Your task to perform on an android device: toggle pop-ups in chrome Image 0: 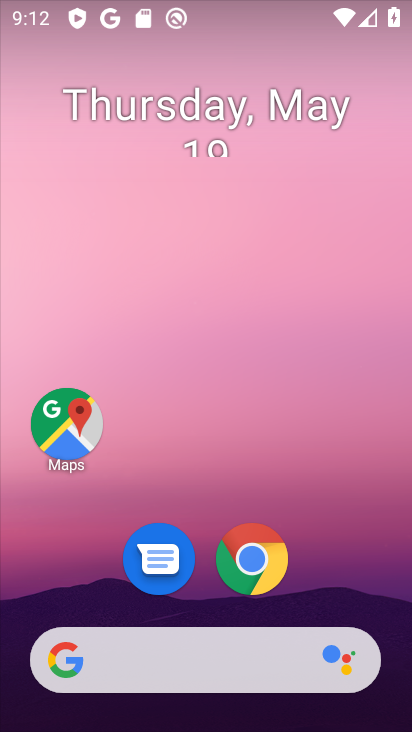
Step 0: click (248, 557)
Your task to perform on an android device: toggle pop-ups in chrome Image 1: 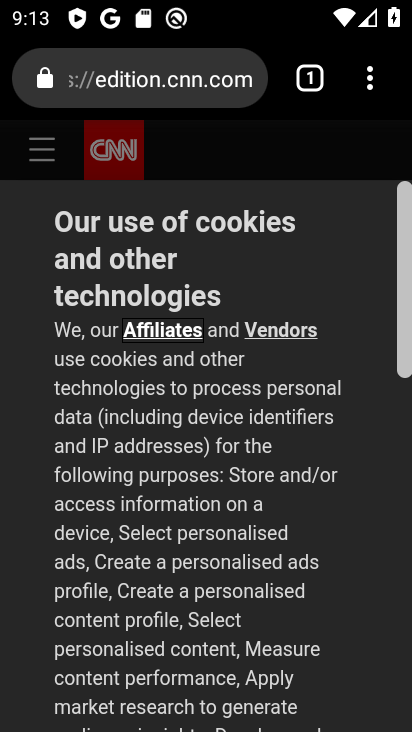
Step 1: drag from (375, 59) to (211, 393)
Your task to perform on an android device: toggle pop-ups in chrome Image 2: 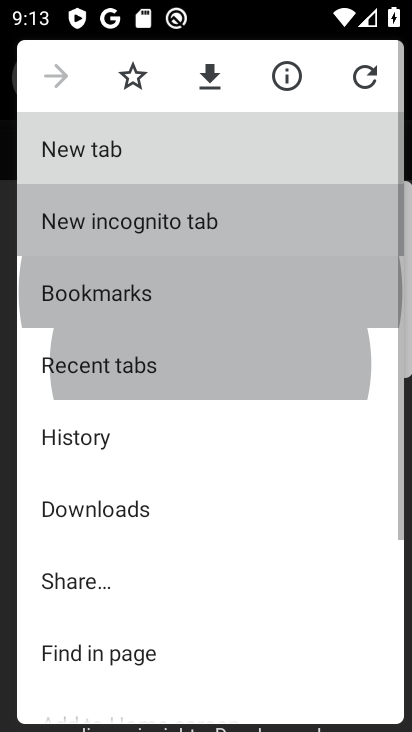
Step 2: drag from (190, 495) to (308, 277)
Your task to perform on an android device: toggle pop-ups in chrome Image 3: 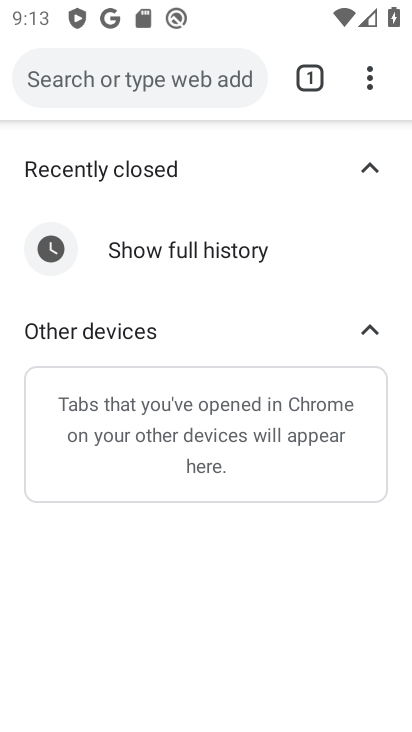
Step 3: drag from (364, 80) to (185, 611)
Your task to perform on an android device: toggle pop-ups in chrome Image 4: 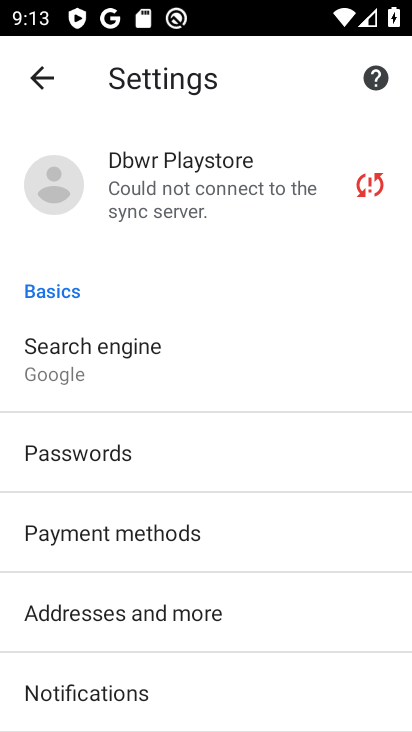
Step 4: drag from (237, 614) to (228, 166)
Your task to perform on an android device: toggle pop-ups in chrome Image 5: 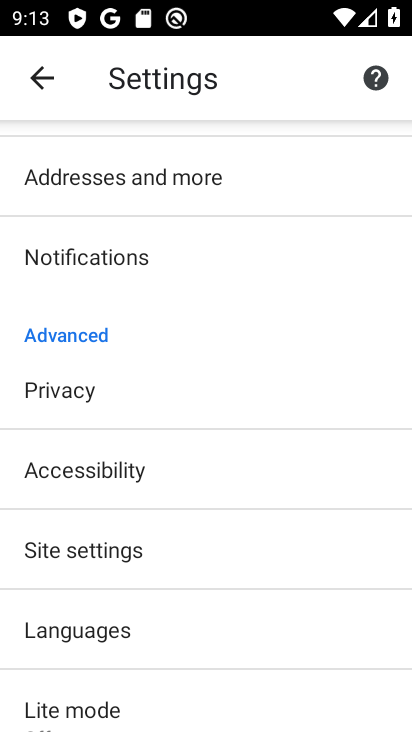
Step 5: click (159, 544)
Your task to perform on an android device: toggle pop-ups in chrome Image 6: 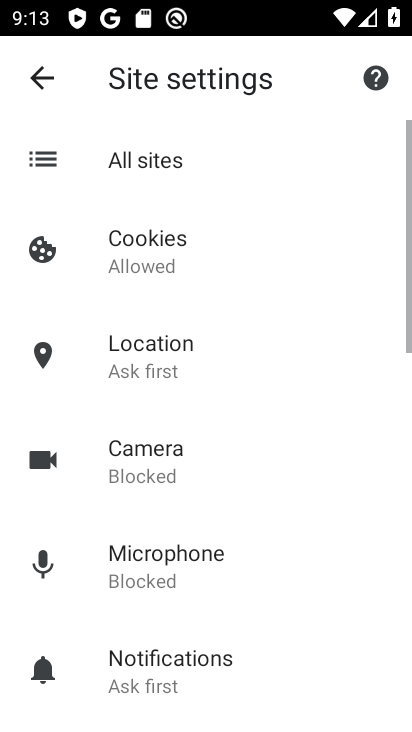
Step 6: drag from (171, 513) to (220, 209)
Your task to perform on an android device: toggle pop-ups in chrome Image 7: 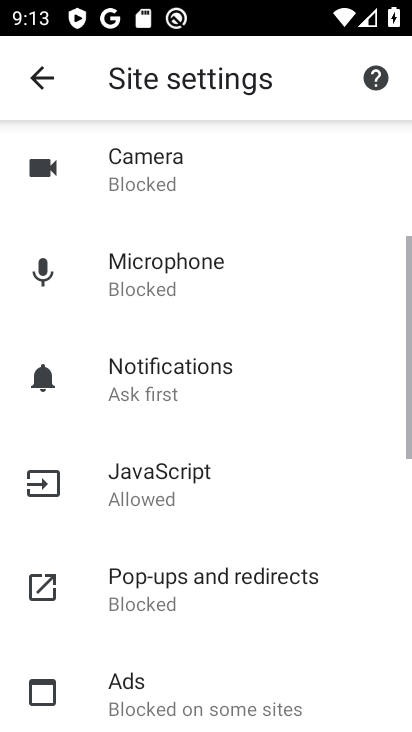
Step 7: click (220, 205)
Your task to perform on an android device: toggle pop-ups in chrome Image 8: 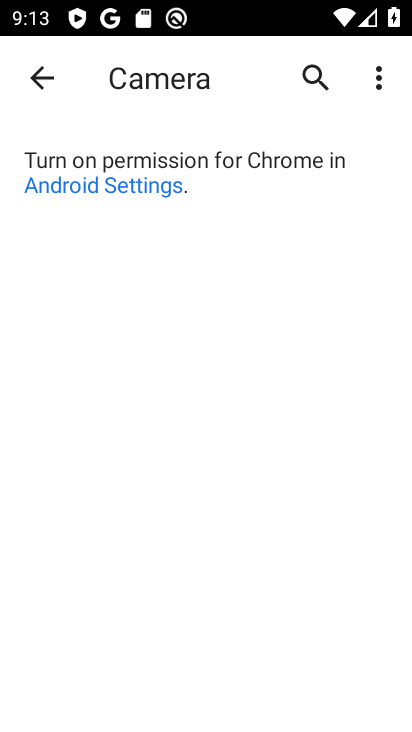
Step 8: click (202, 588)
Your task to perform on an android device: toggle pop-ups in chrome Image 9: 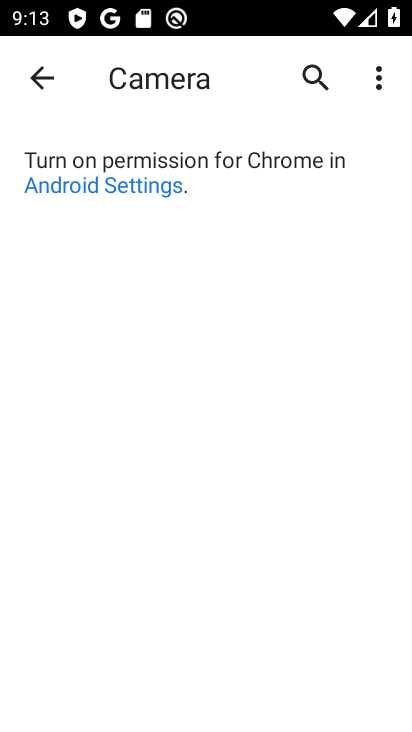
Step 9: click (38, 81)
Your task to perform on an android device: toggle pop-ups in chrome Image 10: 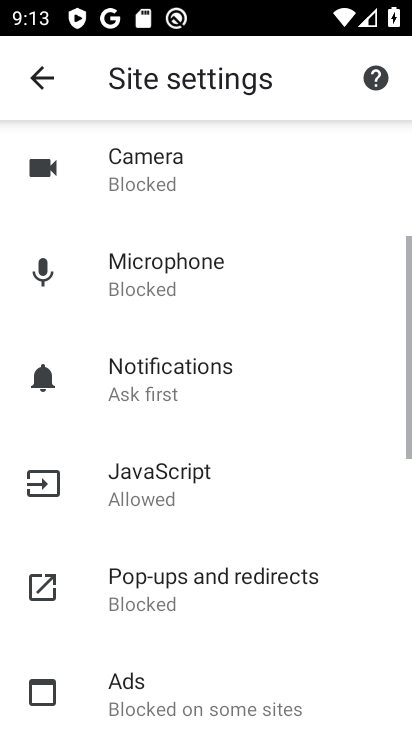
Step 10: click (200, 597)
Your task to perform on an android device: toggle pop-ups in chrome Image 11: 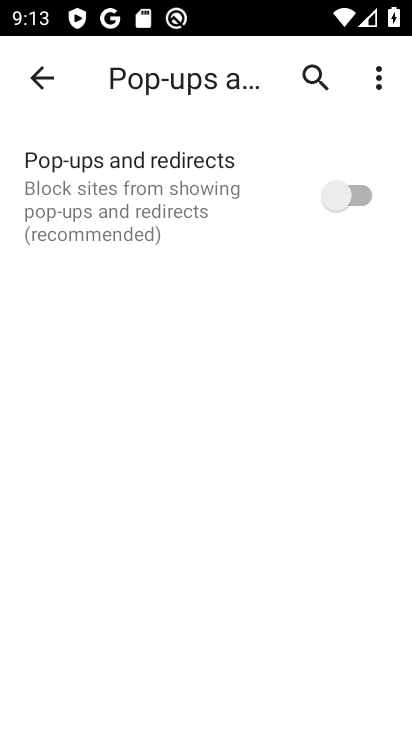
Step 11: click (359, 193)
Your task to perform on an android device: toggle pop-ups in chrome Image 12: 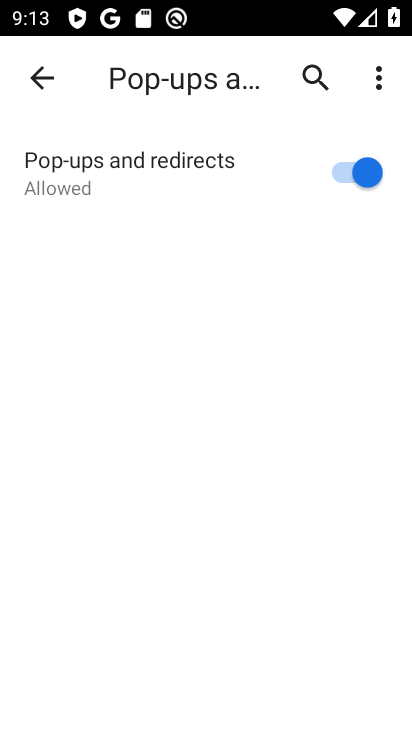
Step 12: task complete